Your task to perform on an android device: change notification settings in the gmail app Image 0: 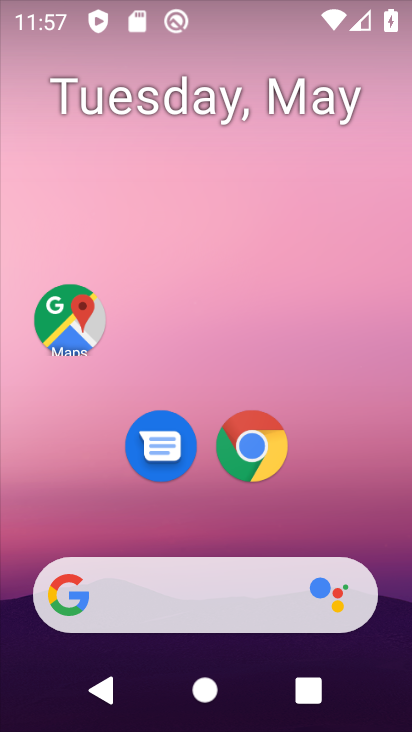
Step 0: drag from (250, 635) to (214, 194)
Your task to perform on an android device: change notification settings in the gmail app Image 1: 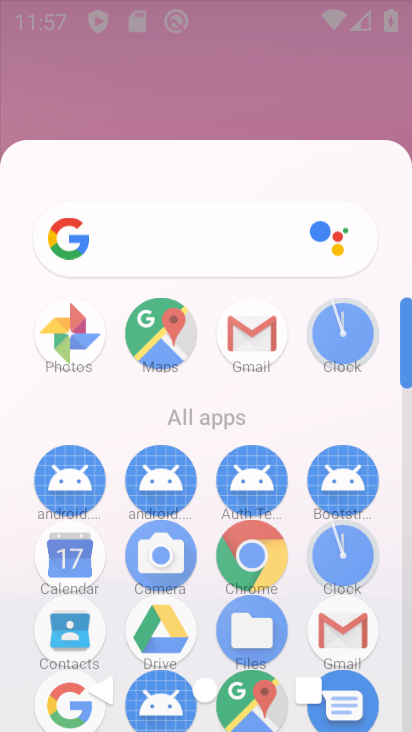
Step 1: drag from (310, 613) to (240, 49)
Your task to perform on an android device: change notification settings in the gmail app Image 2: 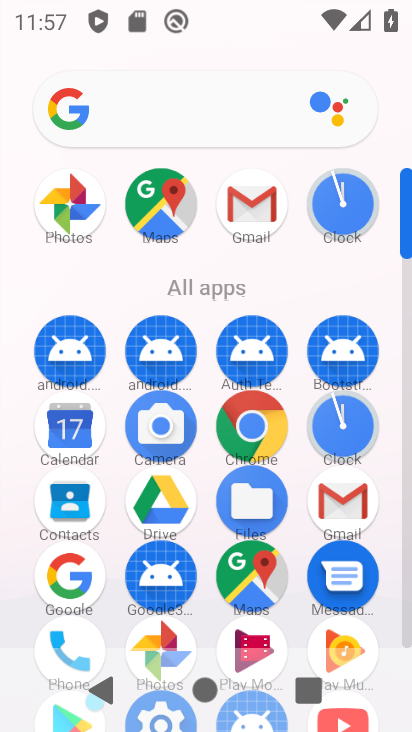
Step 2: click (344, 504)
Your task to perform on an android device: change notification settings in the gmail app Image 3: 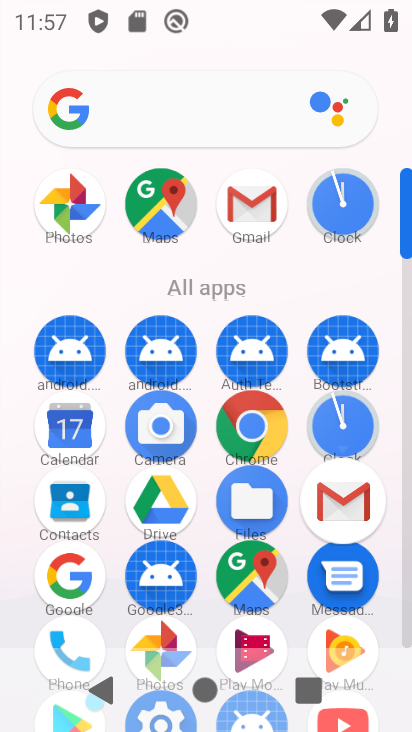
Step 3: click (345, 500)
Your task to perform on an android device: change notification settings in the gmail app Image 4: 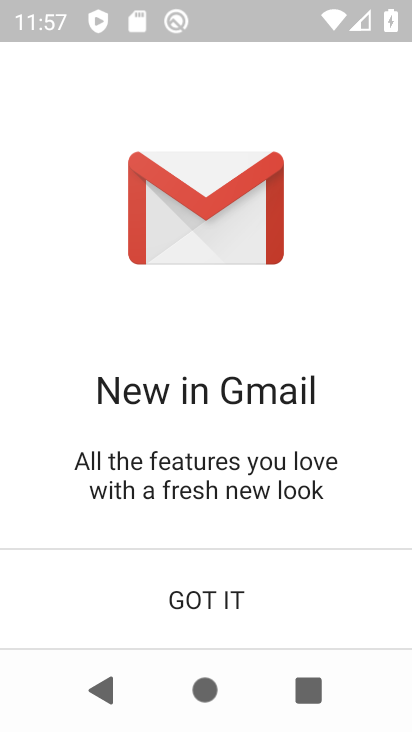
Step 4: click (193, 588)
Your task to perform on an android device: change notification settings in the gmail app Image 5: 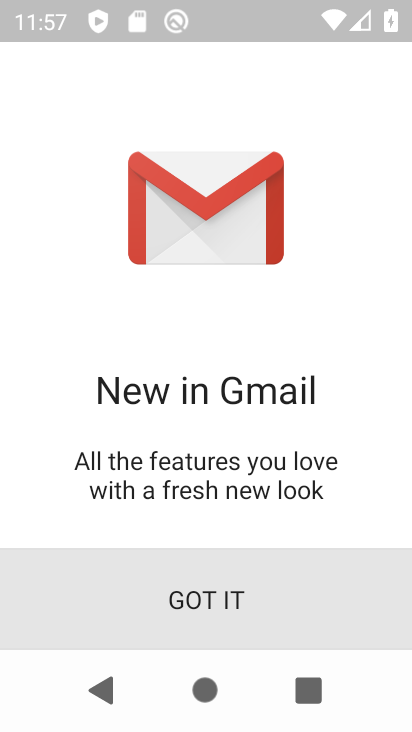
Step 5: click (208, 616)
Your task to perform on an android device: change notification settings in the gmail app Image 6: 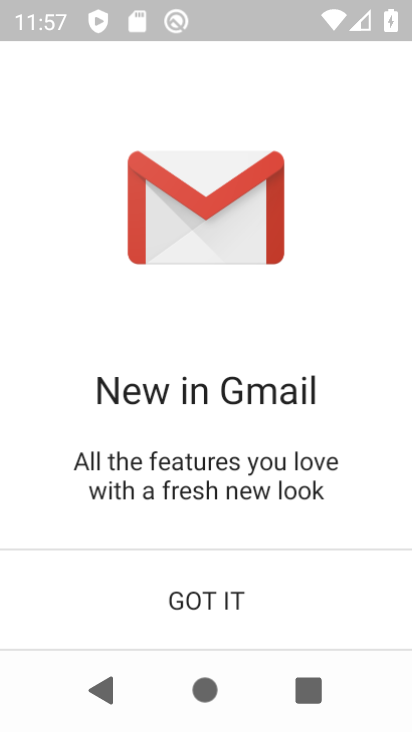
Step 6: click (201, 613)
Your task to perform on an android device: change notification settings in the gmail app Image 7: 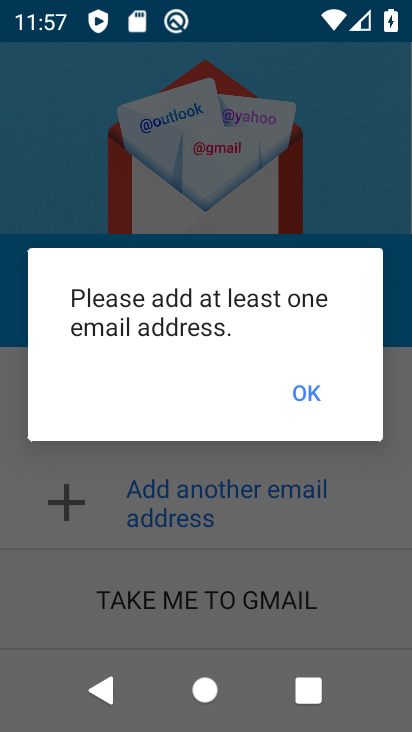
Step 7: click (302, 392)
Your task to perform on an android device: change notification settings in the gmail app Image 8: 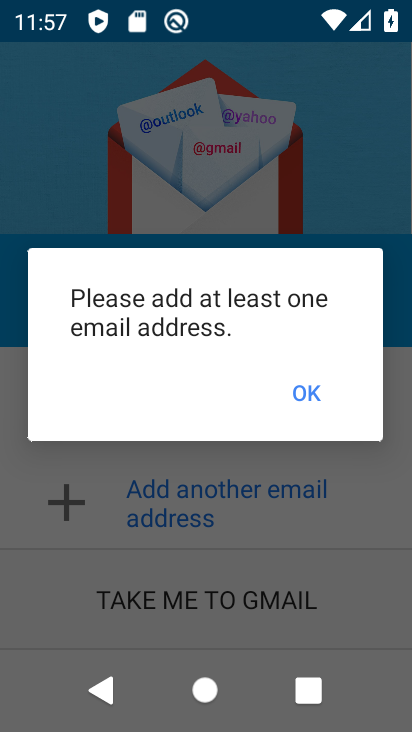
Step 8: click (302, 392)
Your task to perform on an android device: change notification settings in the gmail app Image 9: 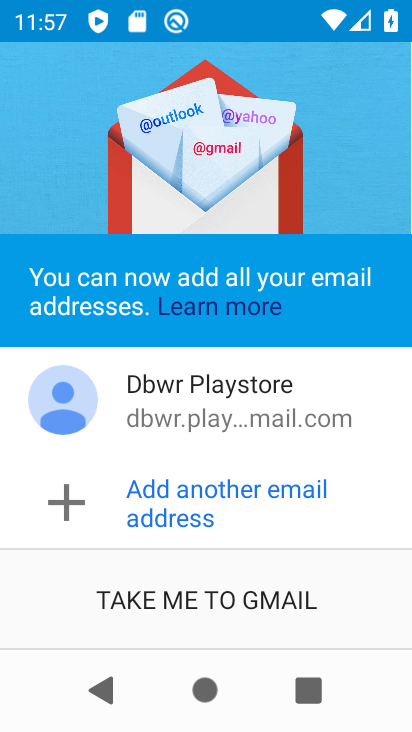
Step 9: click (302, 391)
Your task to perform on an android device: change notification settings in the gmail app Image 10: 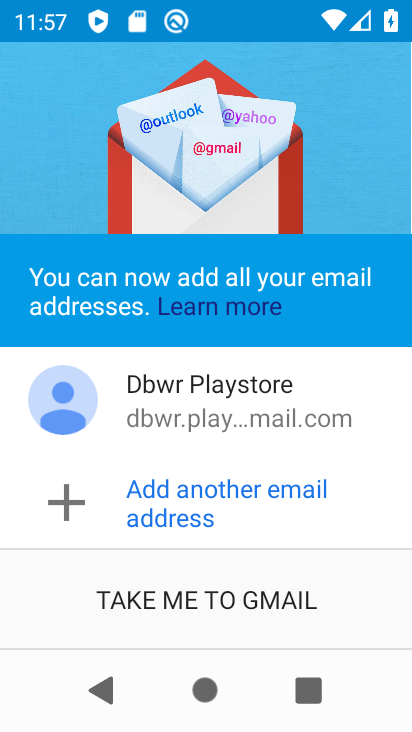
Step 10: drag from (162, 582) to (199, 596)
Your task to perform on an android device: change notification settings in the gmail app Image 11: 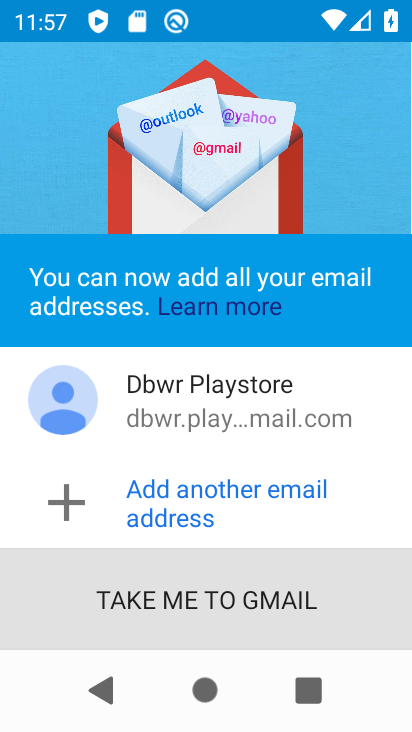
Step 11: click (204, 596)
Your task to perform on an android device: change notification settings in the gmail app Image 12: 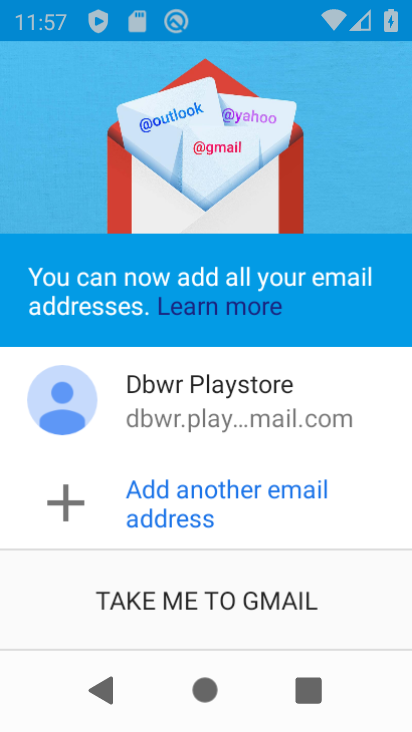
Step 12: click (229, 602)
Your task to perform on an android device: change notification settings in the gmail app Image 13: 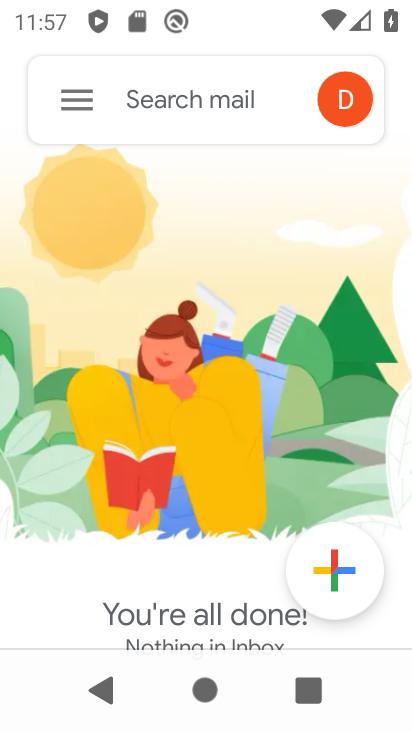
Step 13: click (75, 102)
Your task to perform on an android device: change notification settings in the gmail app Image 14: 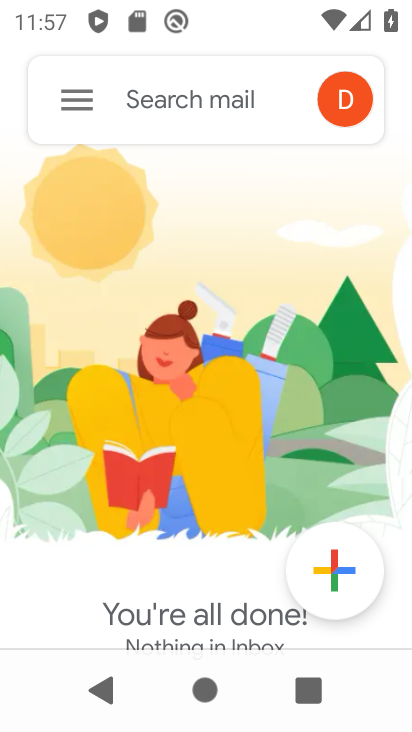
Step 14: click (75, 102)
Your task to perform on an android device: change notification settings in the gmail app Image 15: 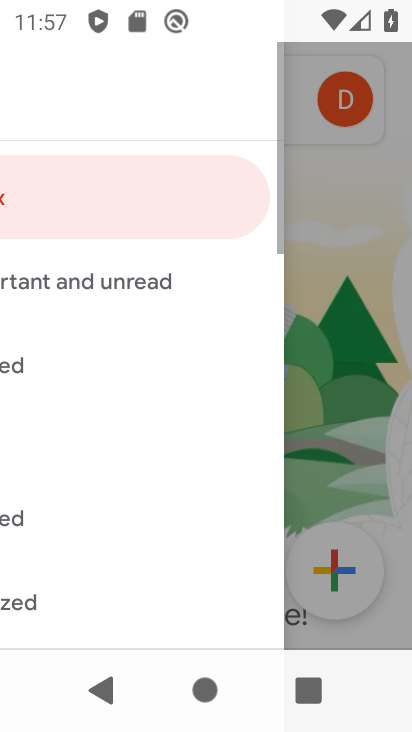
Step 15: click (73, 102)
Your task to perform on an android device: change notification settings in the gmail app Image 16: 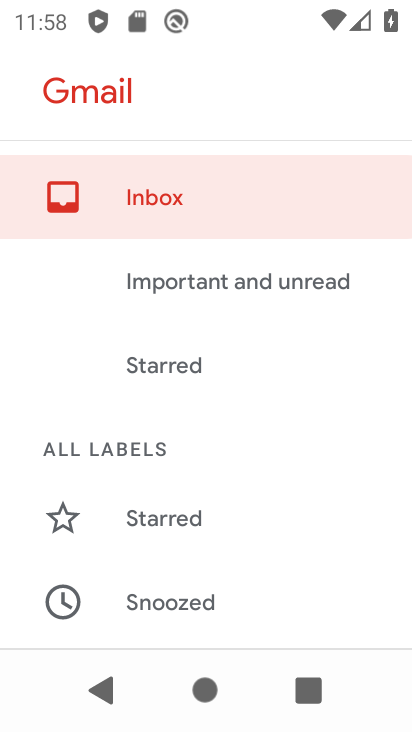
Step 16: drag from (172, 513) to (114, 46)
Your task to perform on an android device: change notification settings in the gmail app Image 17: 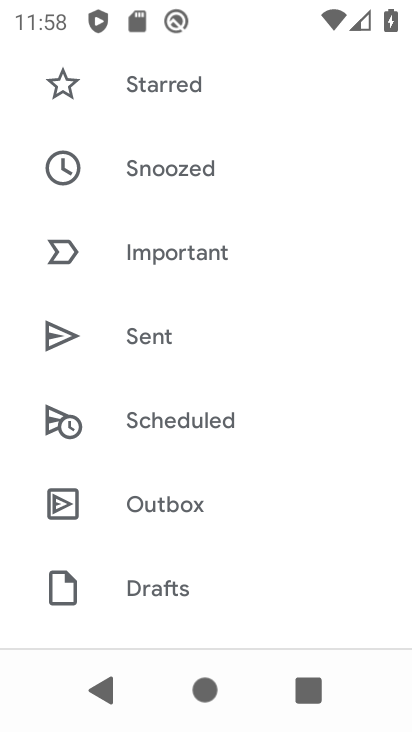
Step 17: drag from (230, 140) to (173, 112)
Your task to perform on an android device: change notification settings in the gmail app Image 18: 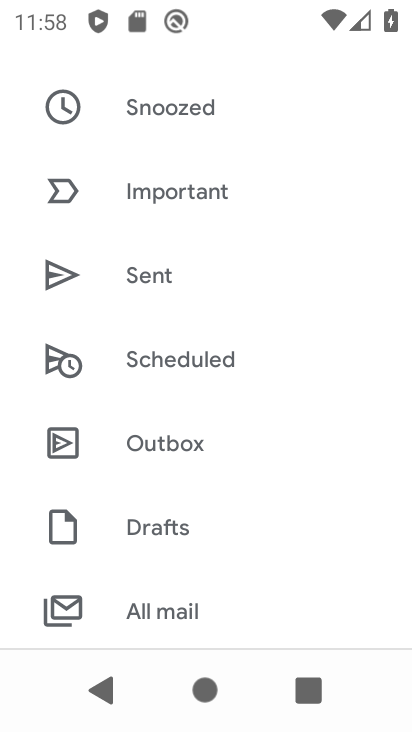
Step 18: drag from (180, 581) to (156, 174)
Your task to perform on an android device: change notification settings in the gmail app Image 19: 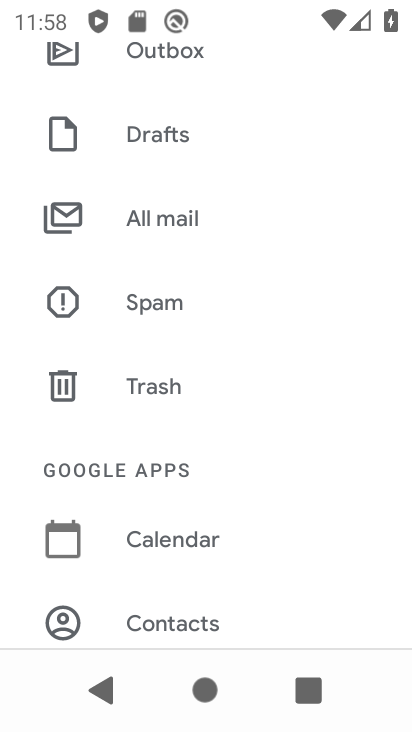
Step 19: drag from (198, 475) to (198, 141)
Your task to perform on an android device: change notification settings in the gmail app Image 20: 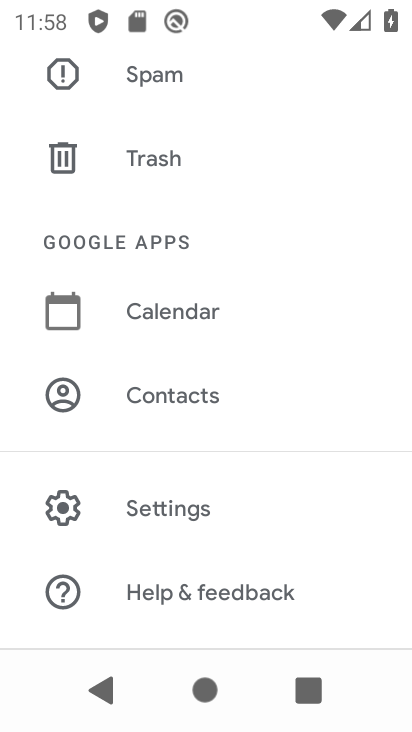
Step 20: click (168, 498)
Your task to perform on an android device: change notification settings in the gmail app Image 21: 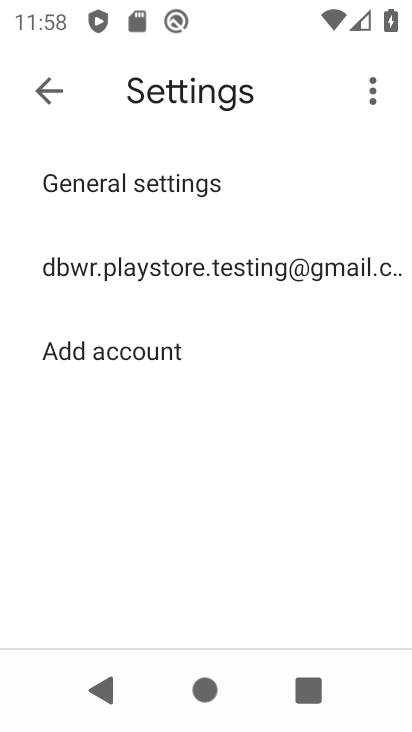
Step 21: click (103, 264)
Your task to perform on an android device: change notification settings in the gmail app Image 22: 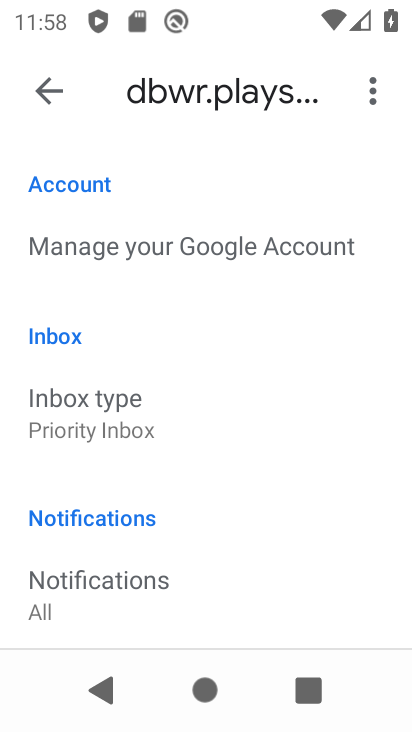
Step 22: click (90, 580)
Your task to perform on an android device: change notification settings in the gmail app Image 23: 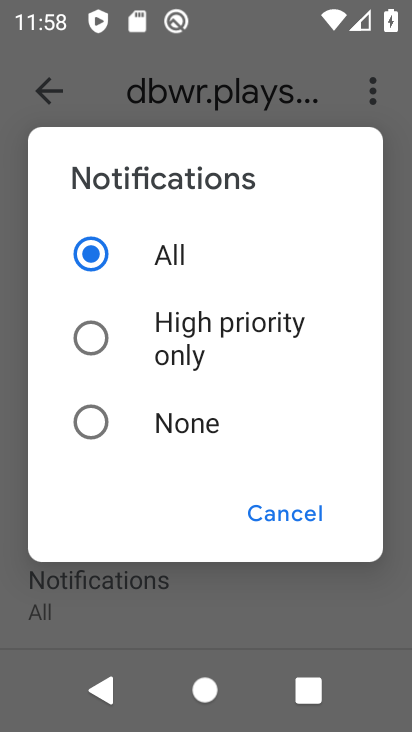
Step 23: click (89, 346)
Your task to perform on an android device: change notification settings in the gmail app Image 24: 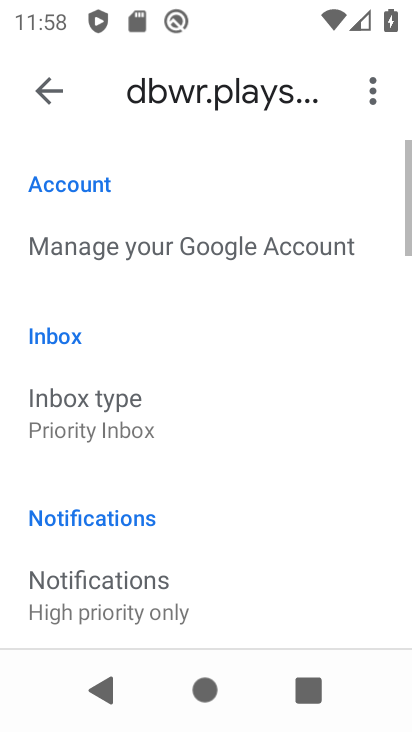
Step 24: task complete